Your task to perform on an android device: Go to wifi settings Image 0: 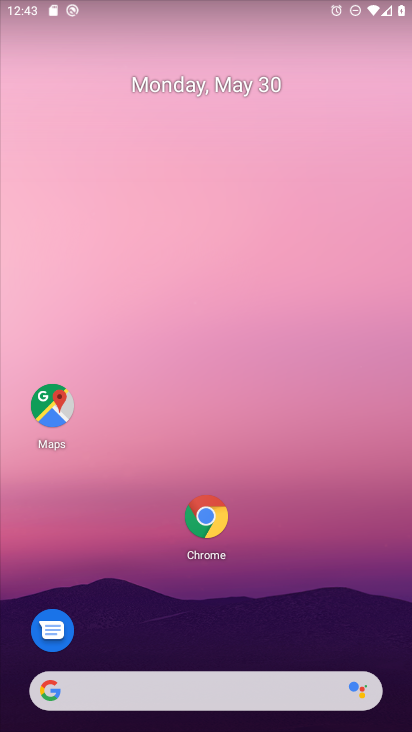
Step 0: press home button
Your task to perform on an android device: Go to wifi settings Image 1: 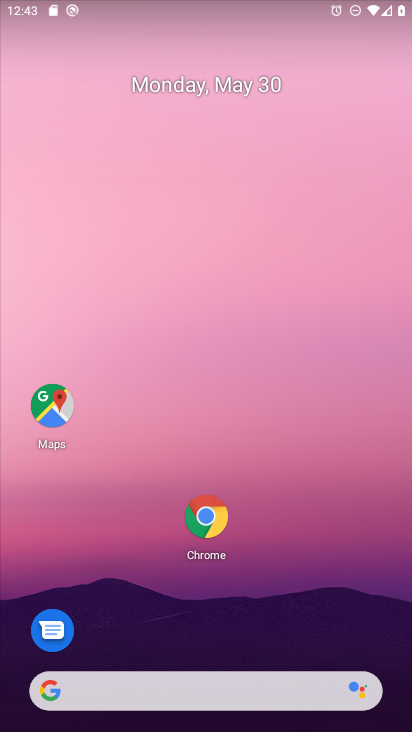
Step 1: drag from (161, 689) to (283, 199)
Your task to perform on an android device: Go to wifi settings Image 2: 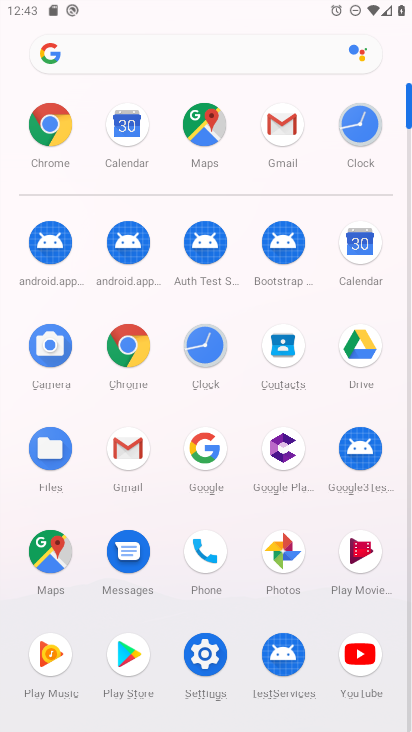
Step 2: click (203, 639)
Your task to perform on an android device: Go to wifi settings Image 3: 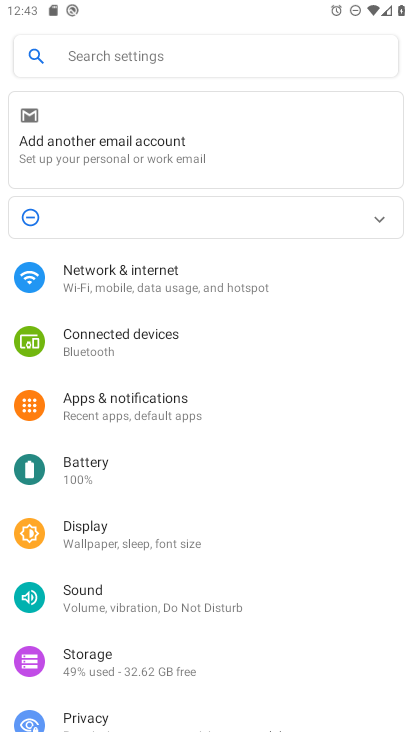
Step 3: click (162, 278)
Your task to perform on an android device: Go to wifi settings Image 4: 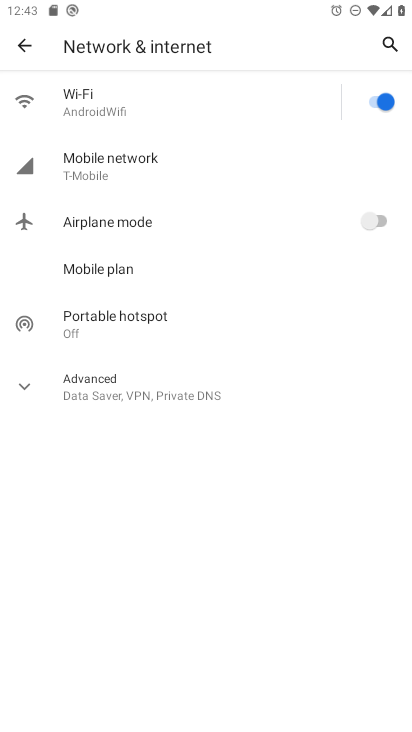
Step 4: click (112, 113)
Your task to perform on an android device: Go to wifi settings Image 5: 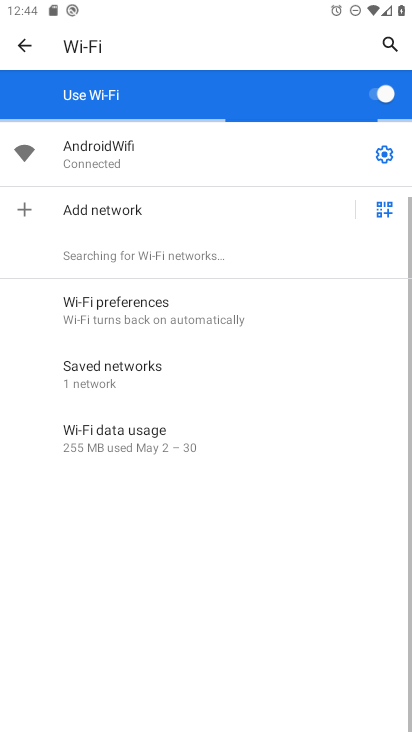
Step 5: task complete